Your task to perform on an android device: Open the calendar app, open the side menu, and click the "Day" option Image 0: 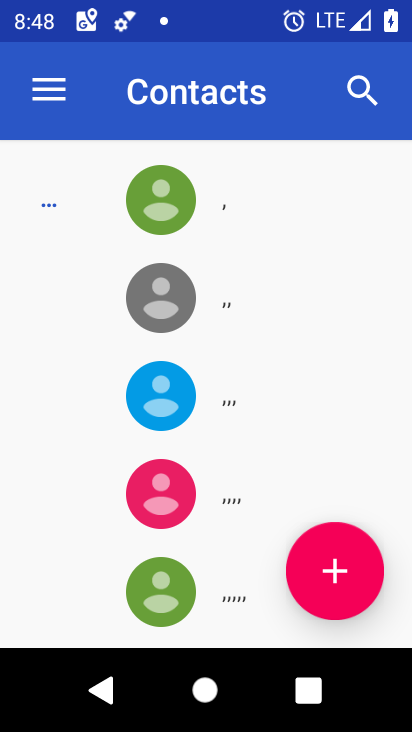
Step 0: press home button
Your task to perform on an android device: Open the calendar app, open the side menu, and click the "Day" option Image 1: 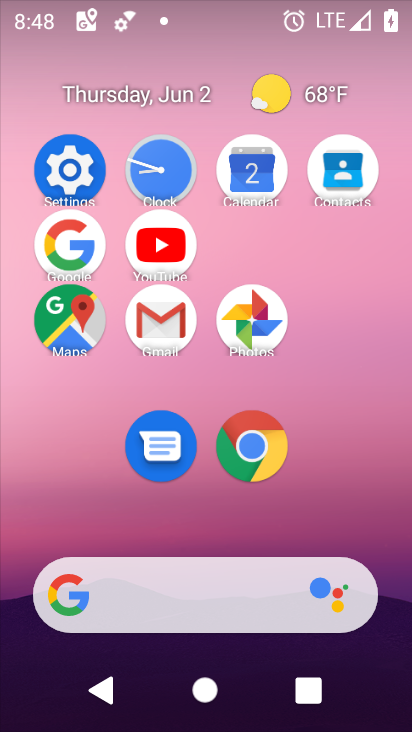
Step 1: click (267, 174)
Your task to perform on an android device: Open the calendar app, open the side menu, and click the "Day" option Image 2: 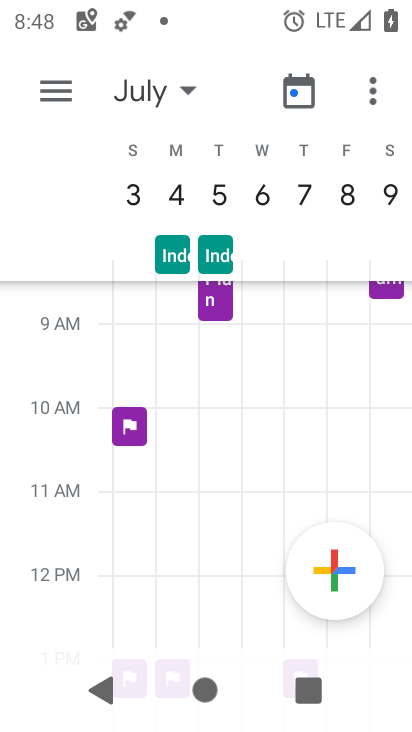
Step 2: click (74, 83)
Your task to perform on an android device: Open the calendar app, open the side menu, and click the "Day" option Image 3: 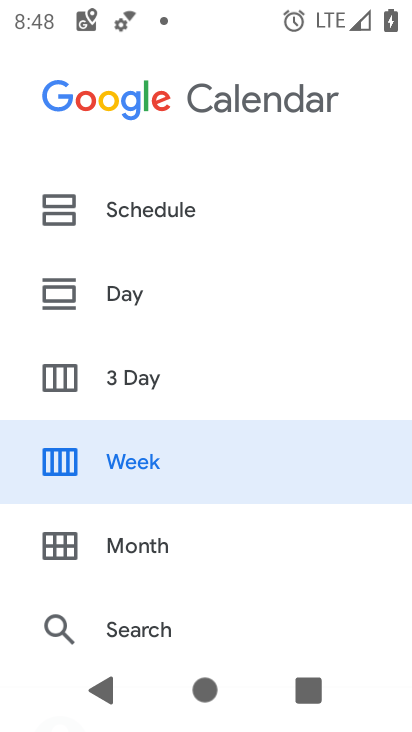
Step 3: click (131, 299)
Your task to perform on an android device: Open the calendar app, open the side menu, and click the "Day" option Image 4: 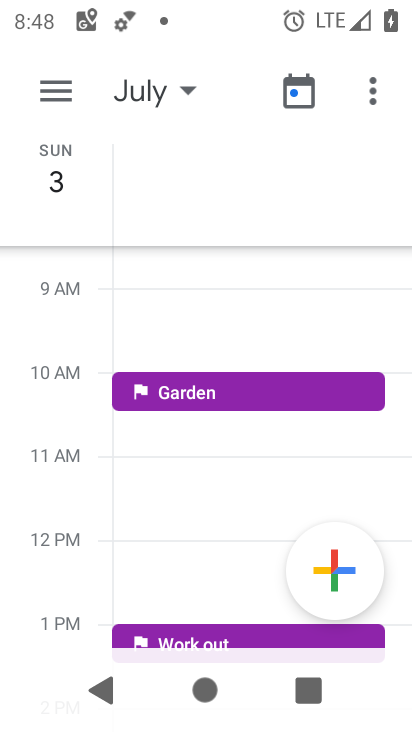
Step 4: task complete